Your task to perform on an android device: check the backup settings in the google photos Image 0: 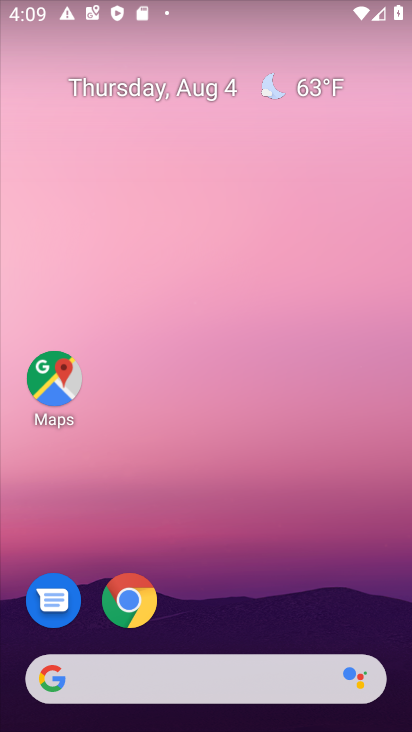
Step 0: drag from (294, 607) to (317, 76)
Your task to perform on an android device: check the backup settings in the google photos Image 1: 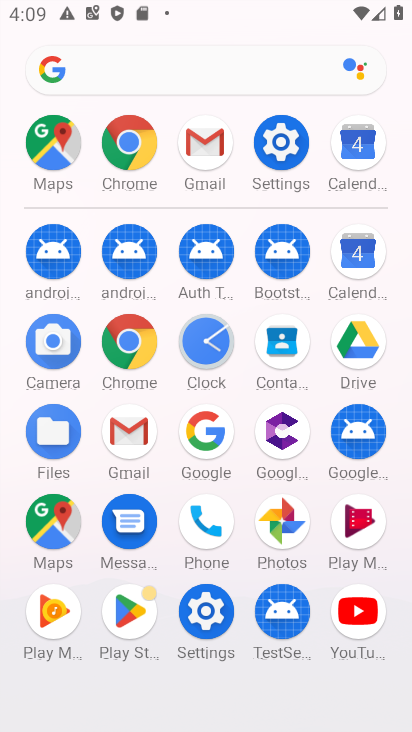
Step 1: click (285, 520)
Your task to perform on an android device: check the backup settings in the google photos Image 2: 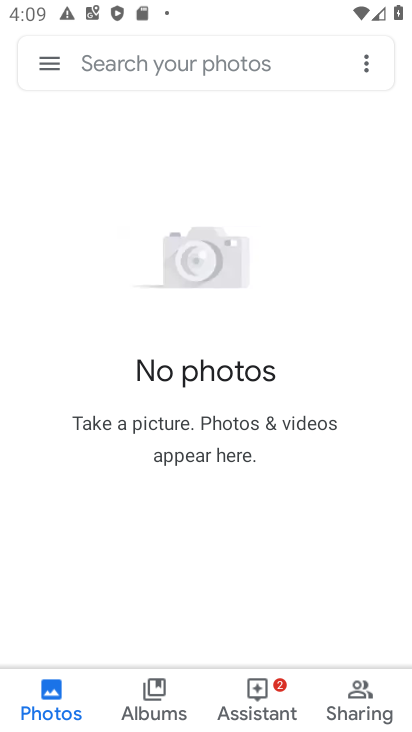
Step 2: click (27, 60)
Your task to perform on an android device: check the backup settings in the google photos Image 3: 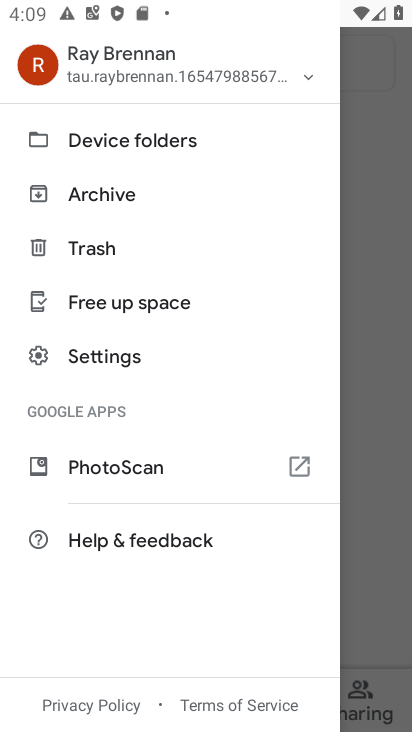
Step 3: click (108, 353)
Your task to perform on an android device: check the backup settings in the google photos Image 4: 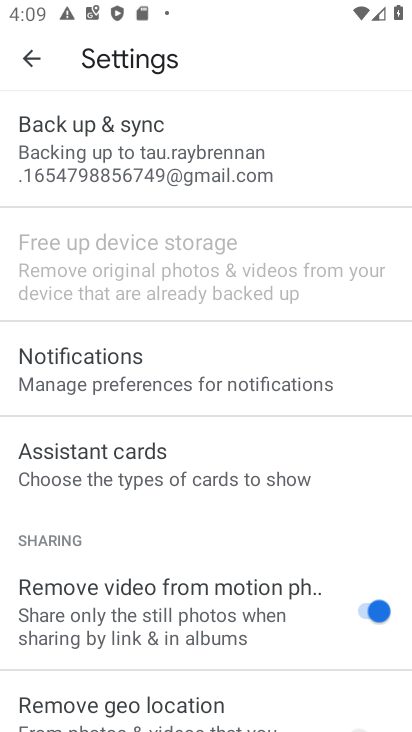
Step 4: click (170, 161)
Your task to perform on an android device: check the backup settings in the google photos Image 5: 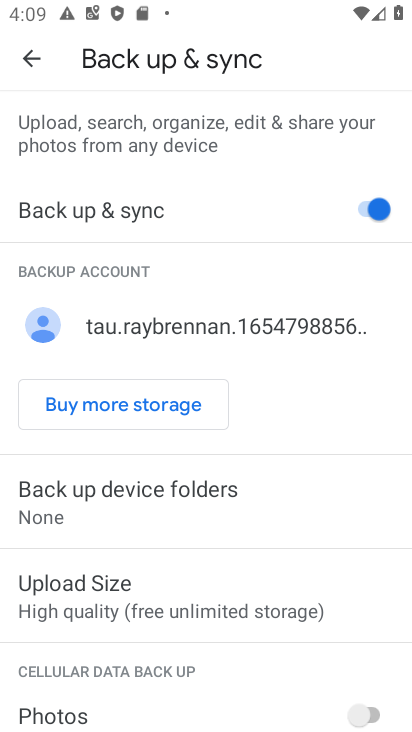
Step 5: task complete